Your task to perform on an android device: turn on wifi Image 0: 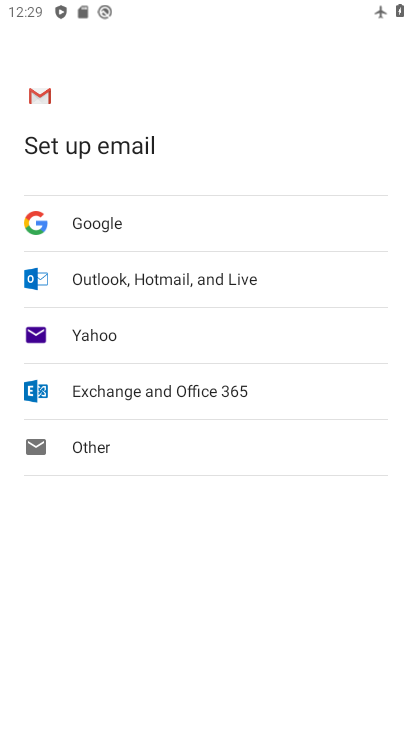
Step 0: press home button
Your task to perform on an android device: turn on wifi Image 1: 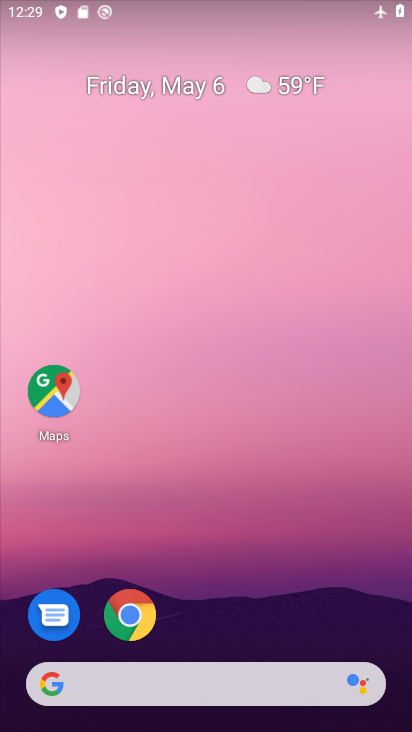
Step 1: drag from (248, 529) to (312, 17)
Your task to perform on an android device: turn on wifi Image 2: 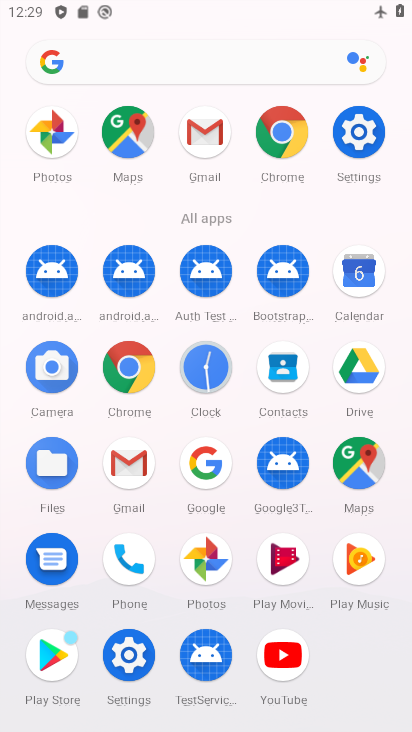
Step 2: click (355, 124)
Your task to perform on an android device: turn on wifi Image 3: 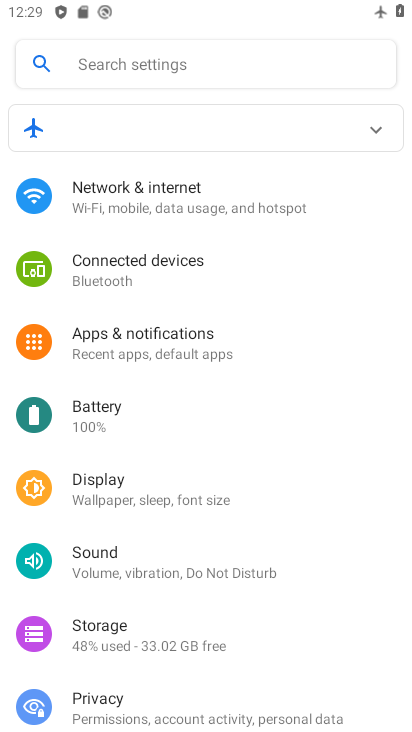
Step 3: click (264, 200)
Your task to perform on an android device: turn on wifi Image 4: 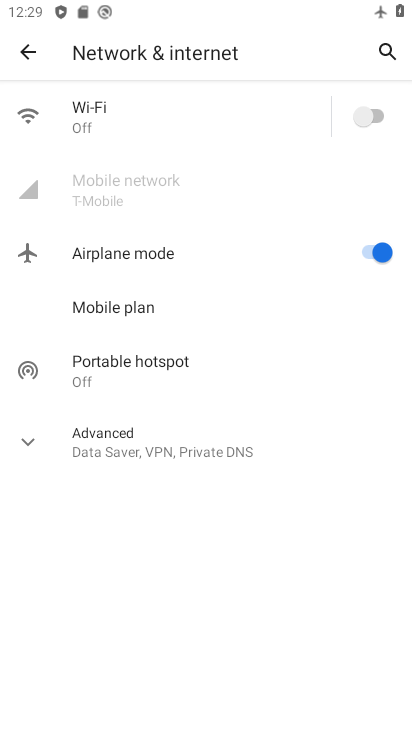
Step 4: click (371, 102)
Your task to perform on an android device: turn on wifi Image 5: 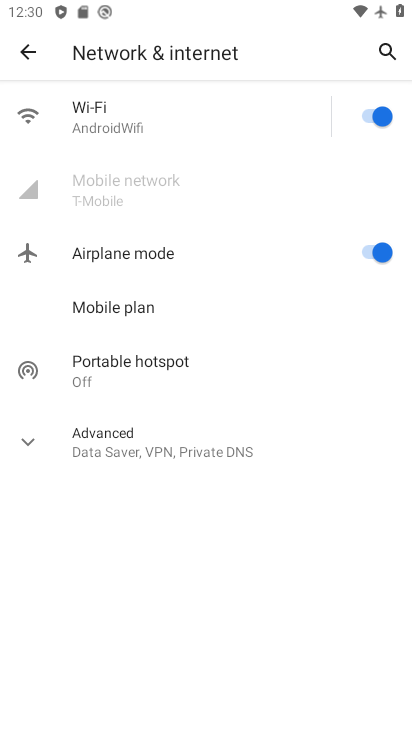
Step 5: task complete